Your task to perform on an android device: install app "DoorDash - Dasher" Image 0: 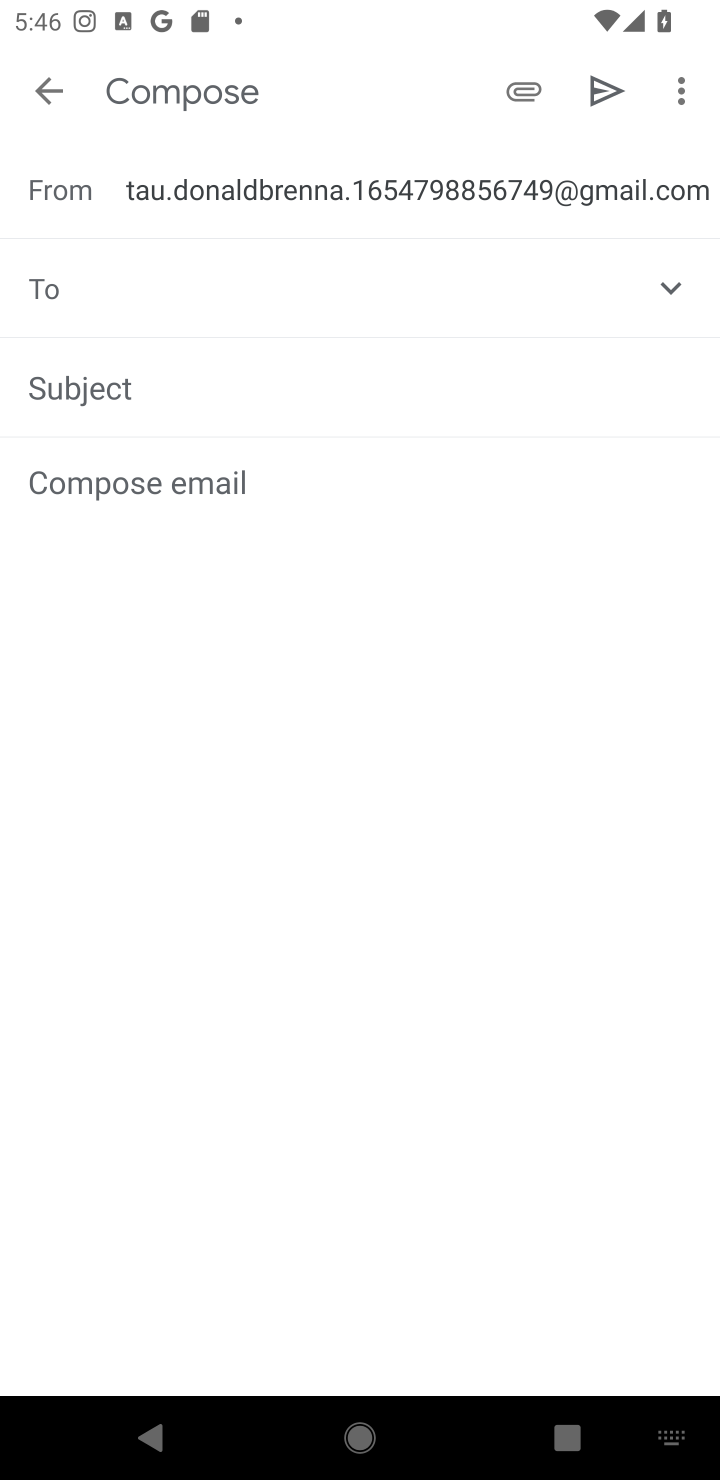
Step 0: press home button
Your task to perform on an android device: install app "DoorDash - Dasher" Image 1: 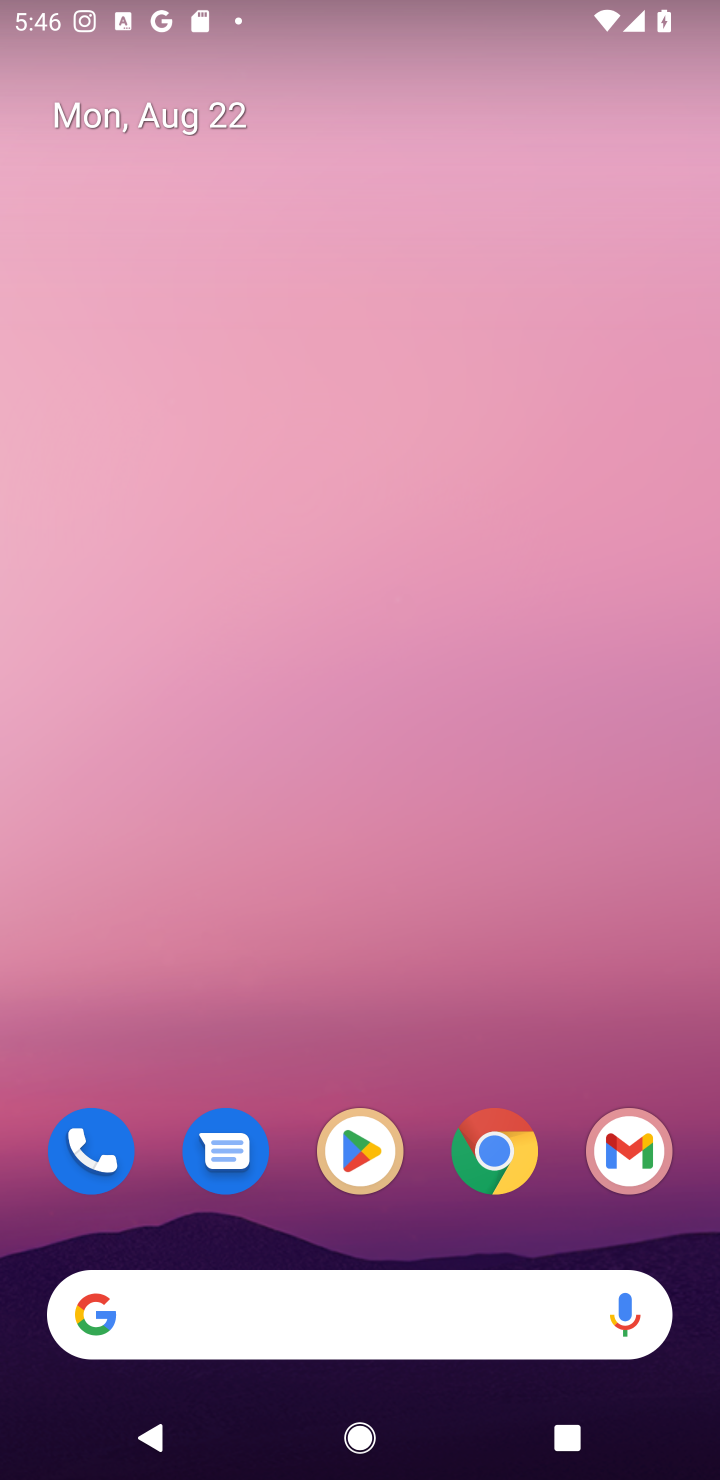
Step 1: click (360, 1149)
Your task to perform on an android device: install app "DoorDash - Dasher" Image 2: 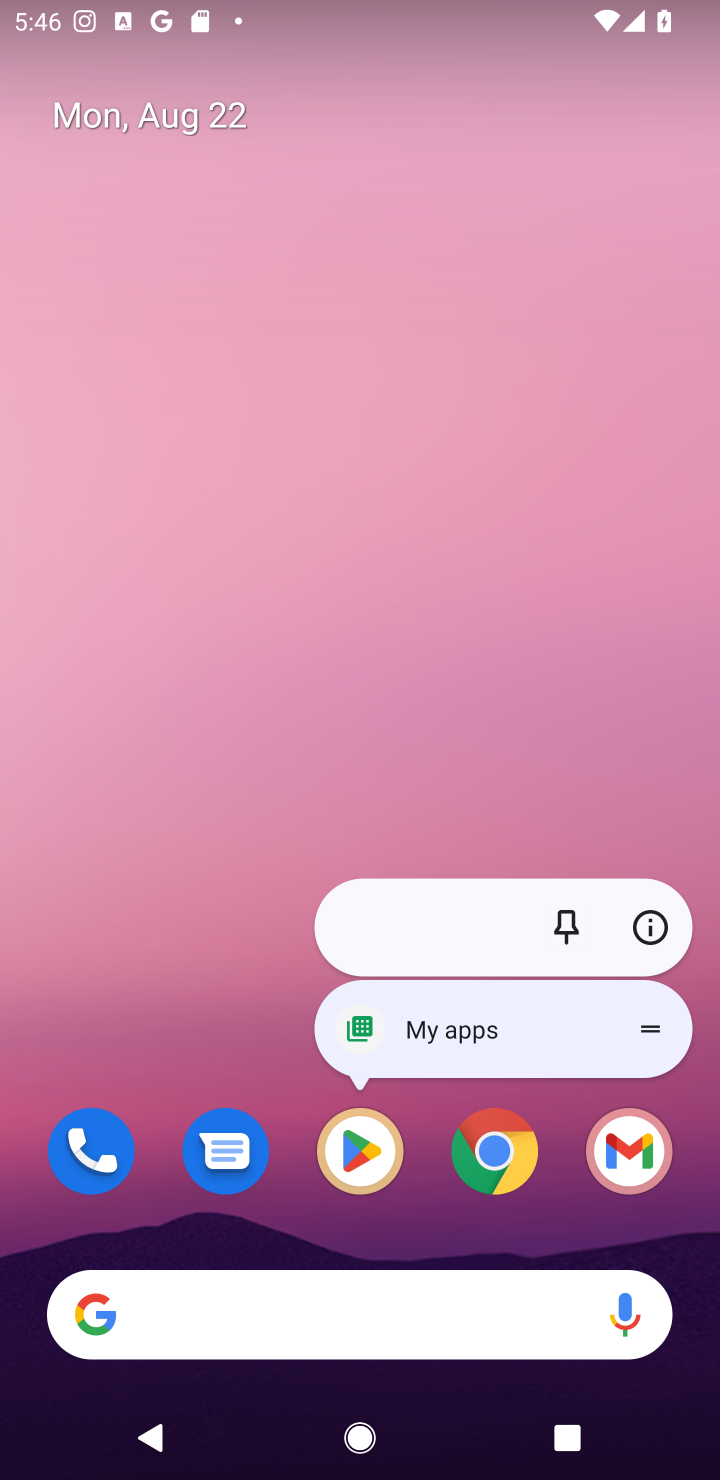
Step 2: click (360, 1151)
Your task to perform on an android device: install app "DoorDash - Dasher" Image 3: 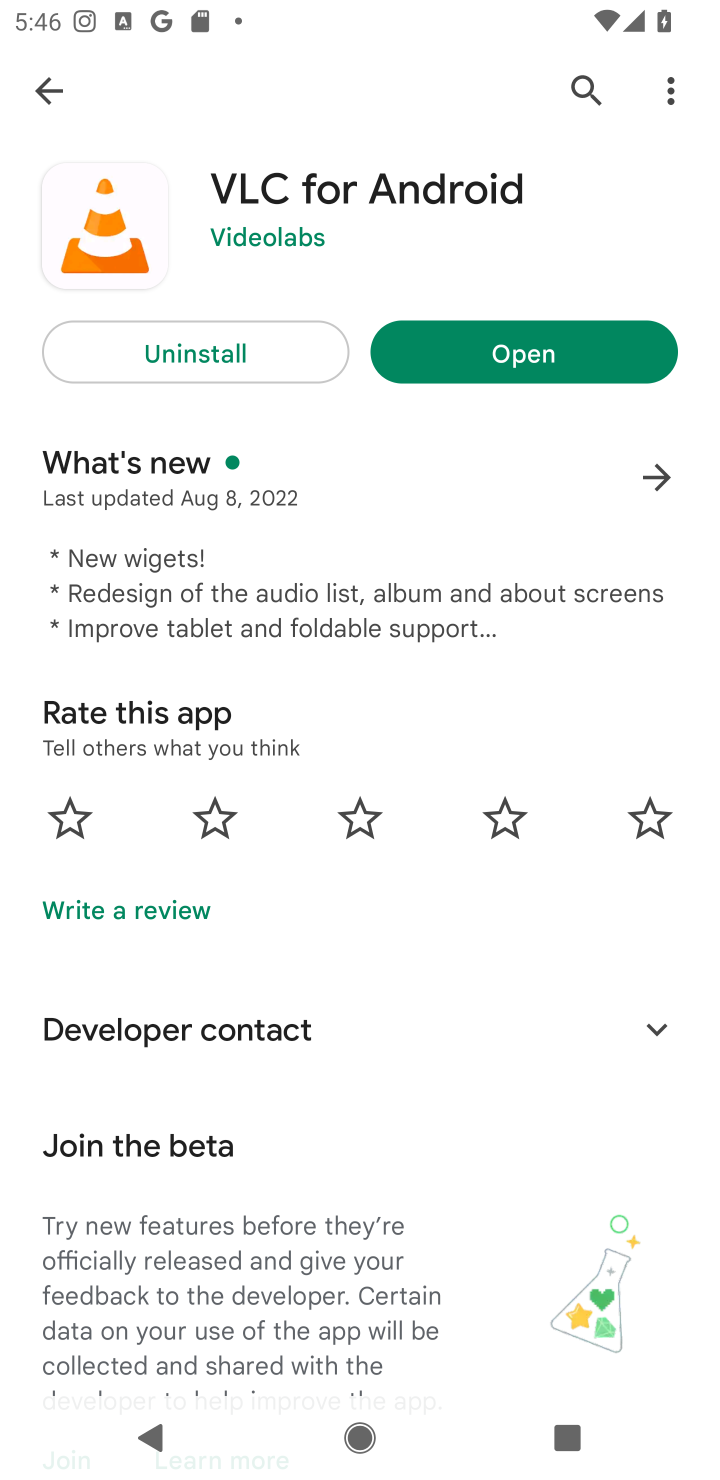
Step 3: click (574, 86)
Your task to perform on an android device: install app "DoorDash - Dasher" Image 4: 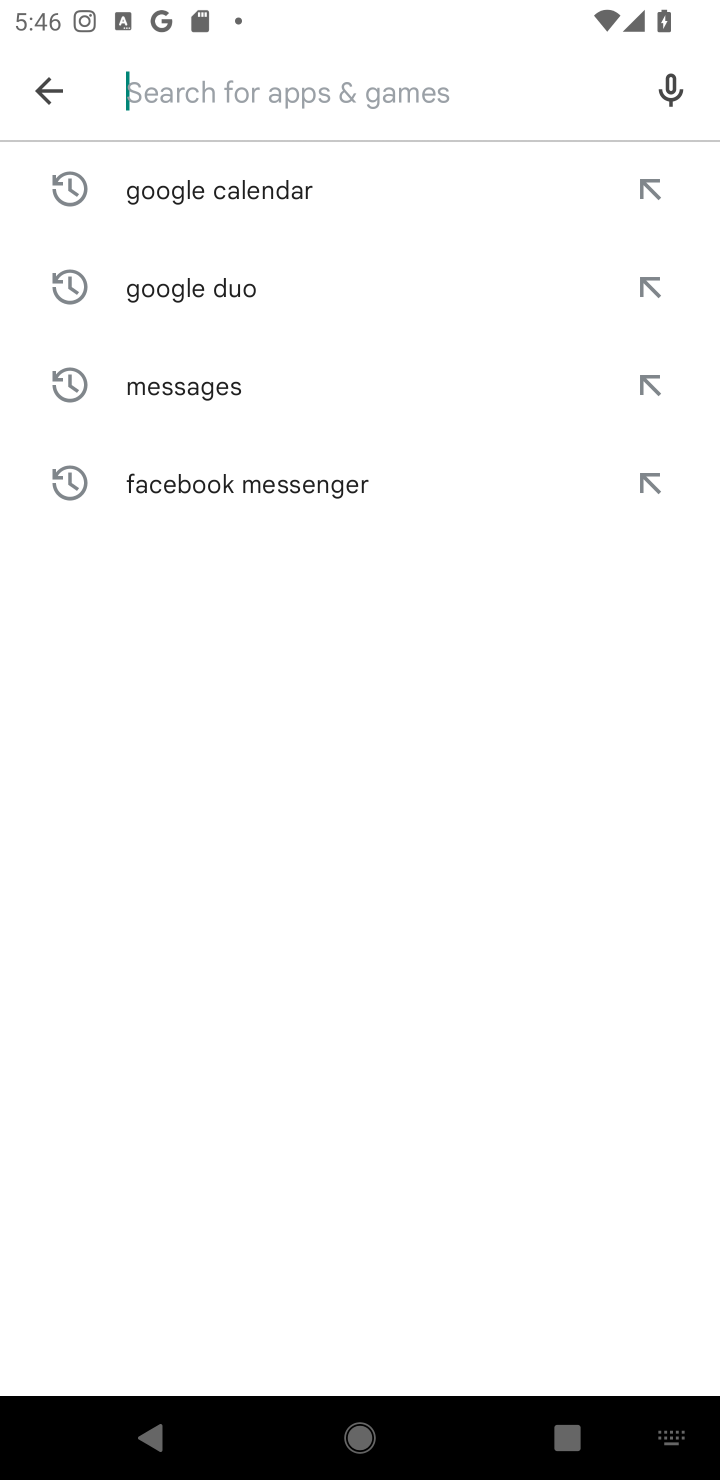
Step 4: type "DoorDash - Dasher"
Your task to perform on an android device: install app "DoorDash - Dasher" Image 5: 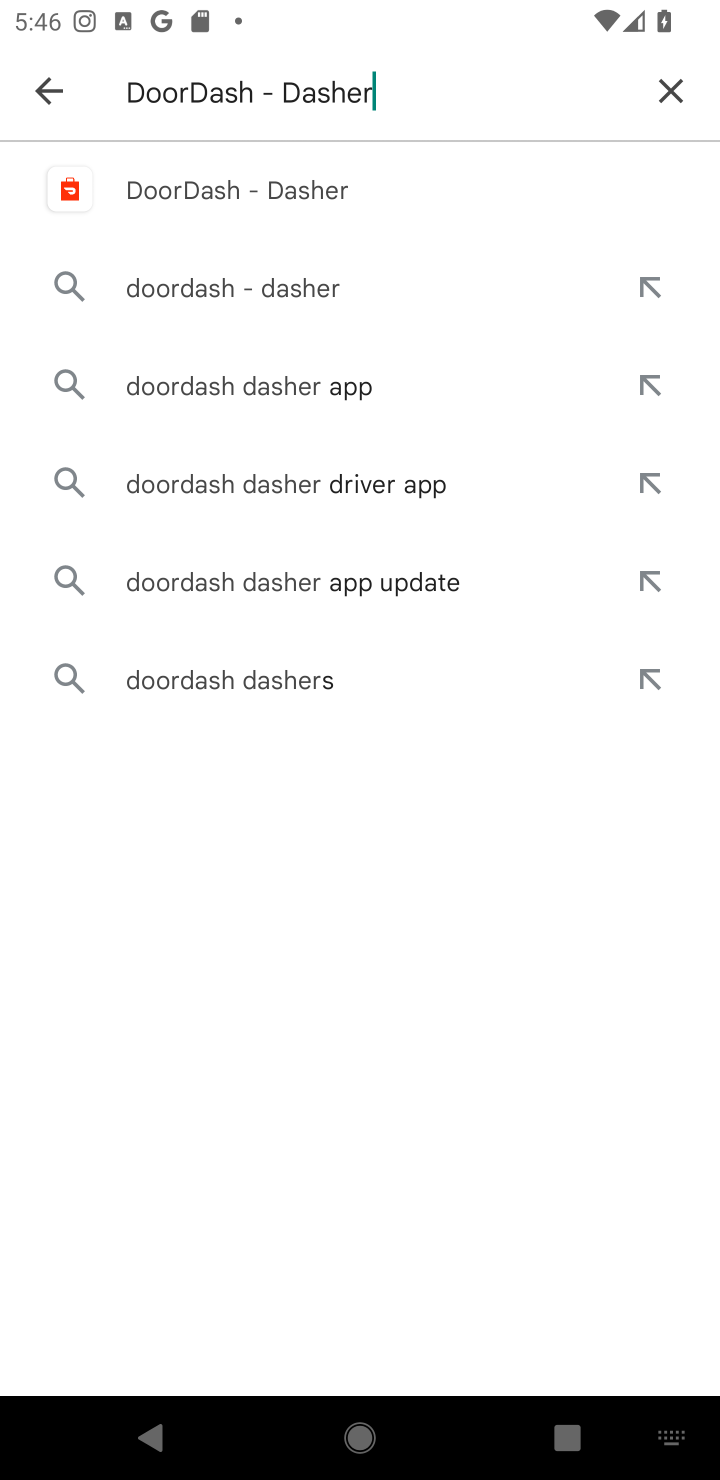
Step 5: click (328, 195)
Your task to perform on an android device: install app "DoorDash - Dasher" Image 6: 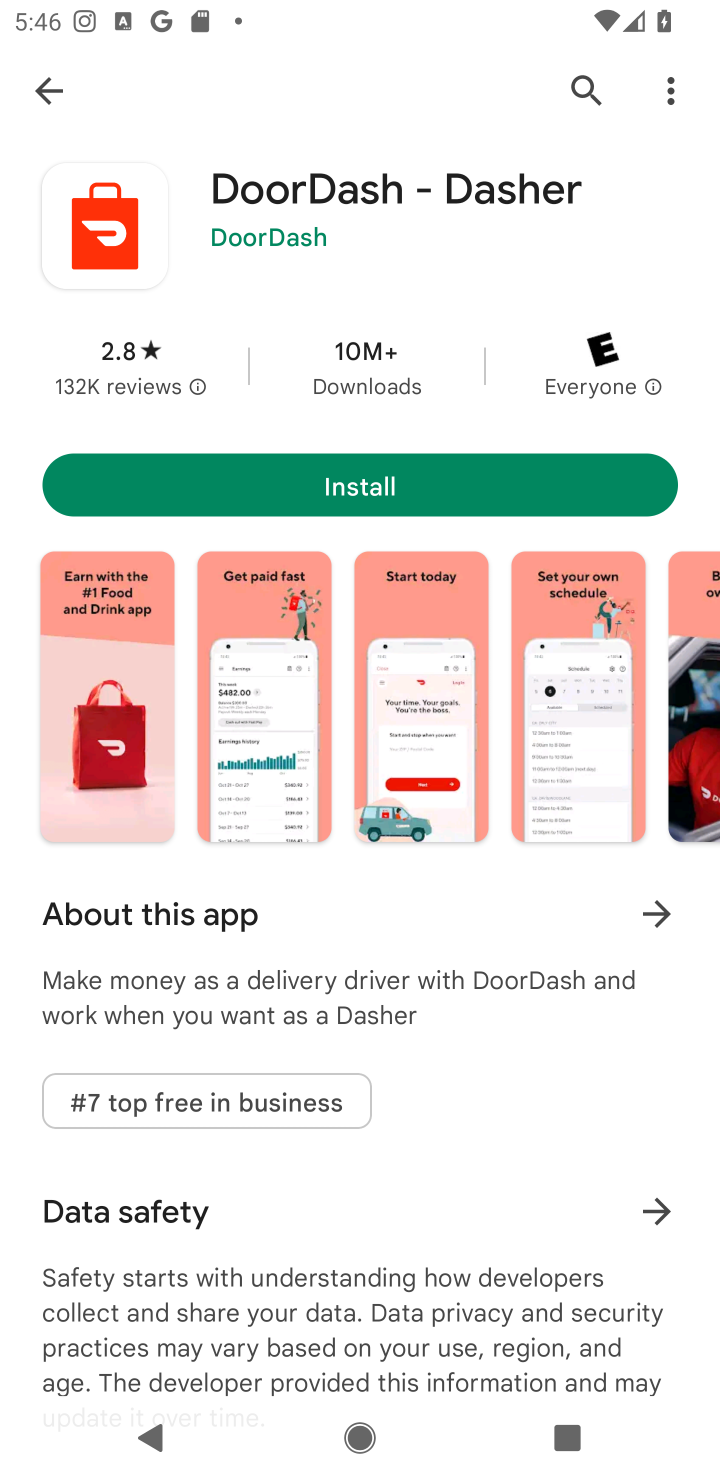
Step 6: click (351, 484)
Your task to perform on an android device: install app "DoorDash - Dasher" Image 7: 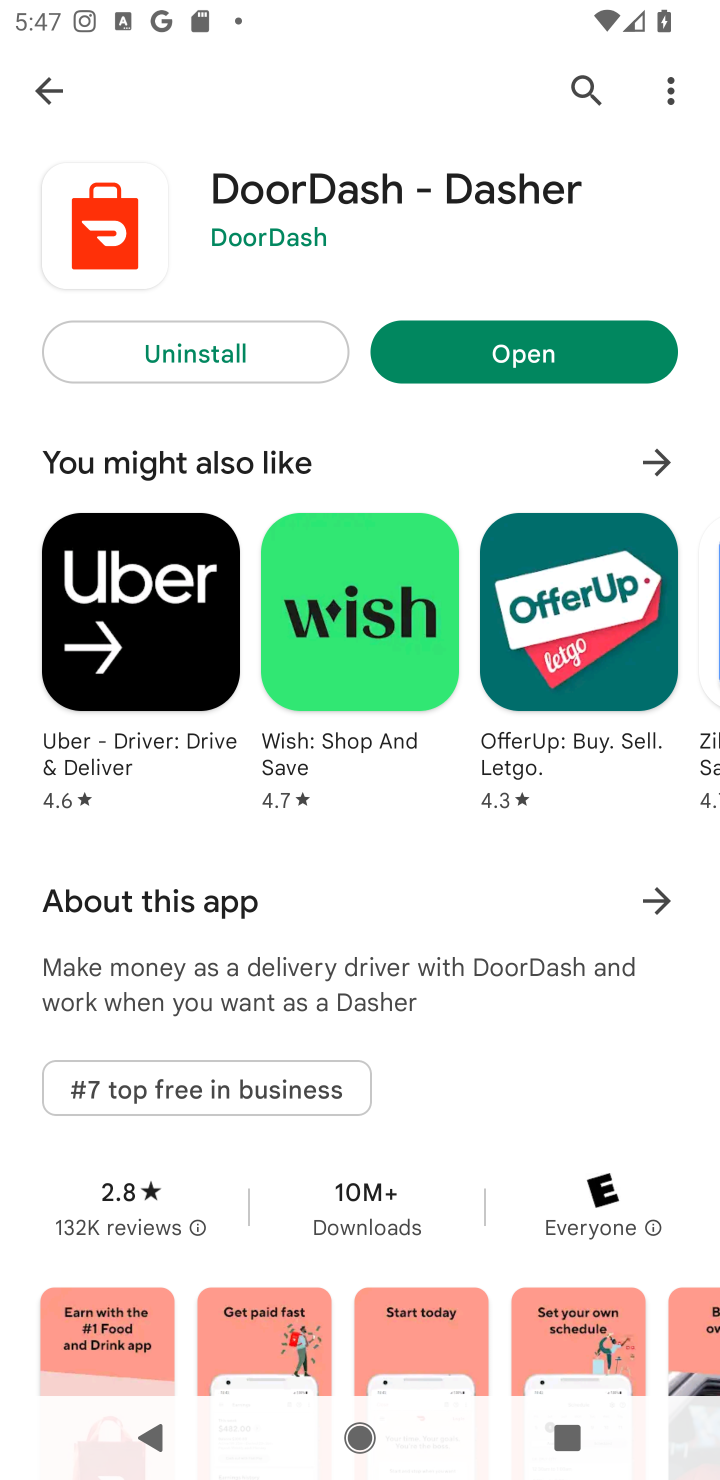
Step 7: task complete